Your task to perform on an android device: change text size in settings app Image 0: 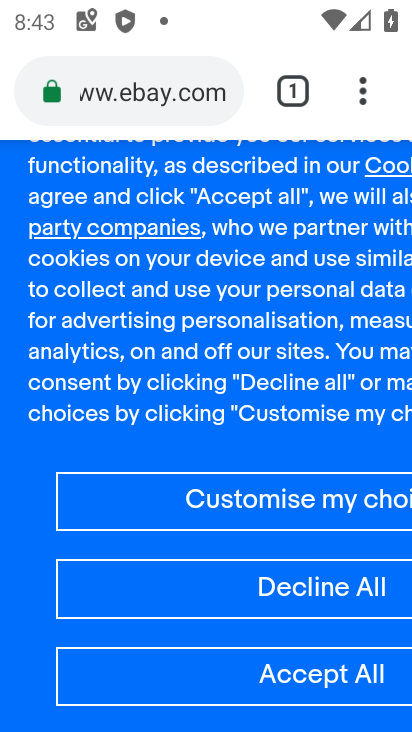
Step 0: press home button
Your task to perform on an android device: change text size in settings app Image 1: 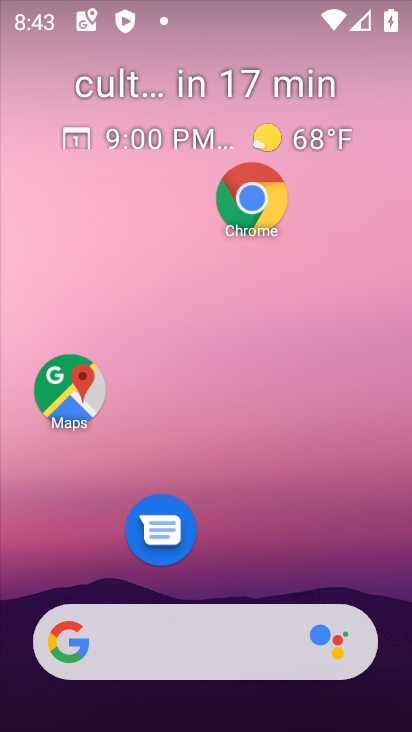
Step 1: drag from (208, 560) to (209, 124)
Your task to perform on an android device: change text size in settings app Image 2: 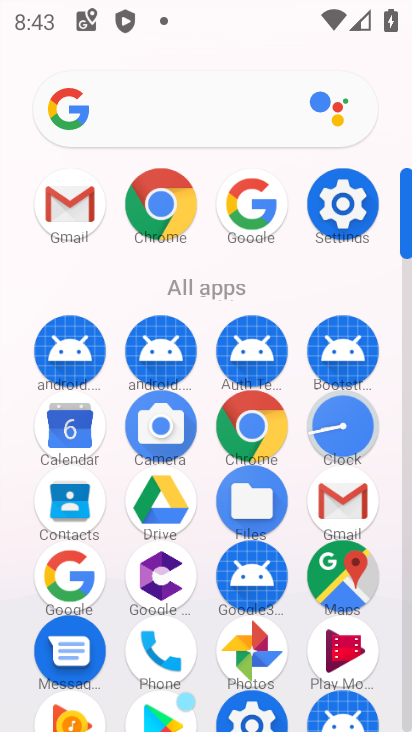
Step 2: click (350, 212)
Your task to perform on an android device: change text size in settings app Image 3: 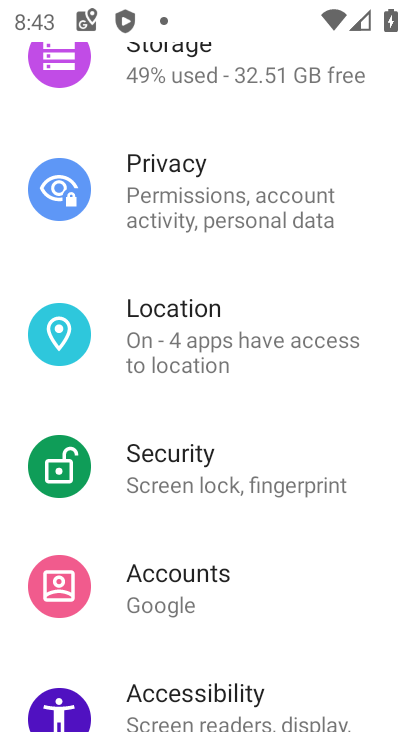
Step 3: drag from (196, 184) to (196, 462)
Your task to perform on an android device: change text size in settings app Image 4: 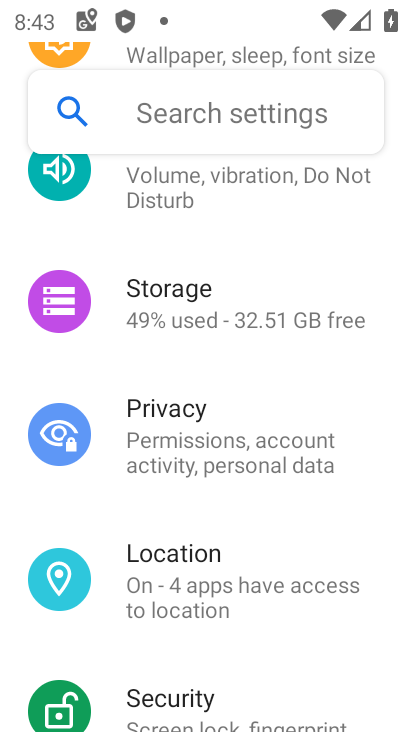
Step 4: drag from (180, 224) to (218, 479)
Your task to perform on an android device: change text size in settings app Image 5: 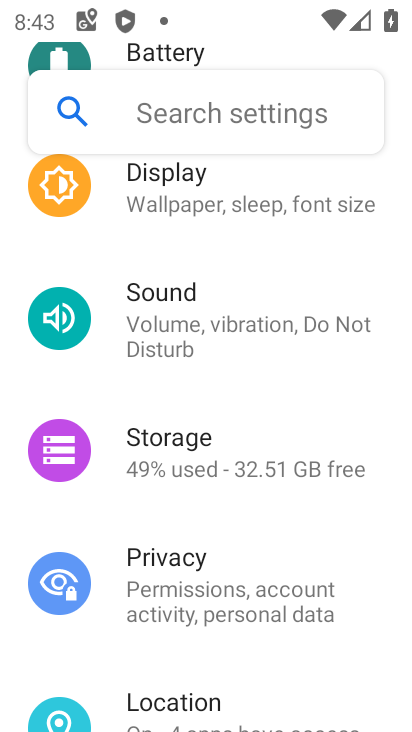
Step 5: click (177, 197)
Your task to perform on an android device: change text size in settings app Image 6: 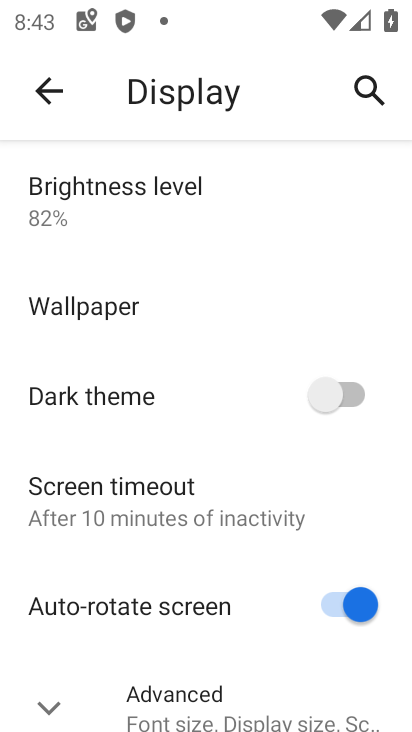
Step 6: drag from (170, 637) to (170, 375)
Your task to perform on an android device: change text size in settings app Image 7: 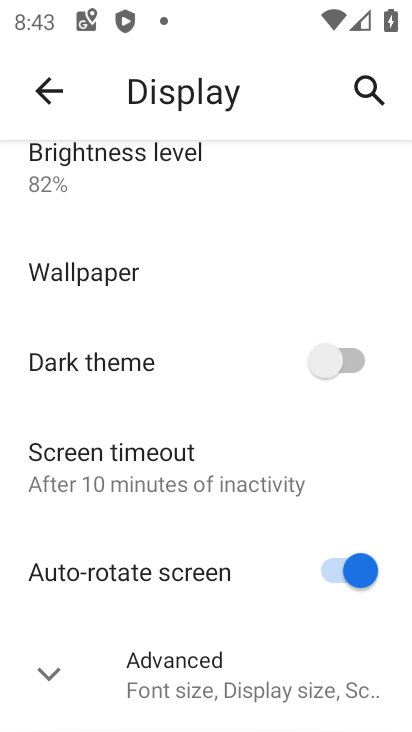
Step 7: click (123, 668)
Your task to perform on an android device: change text size in settings app Image 8: 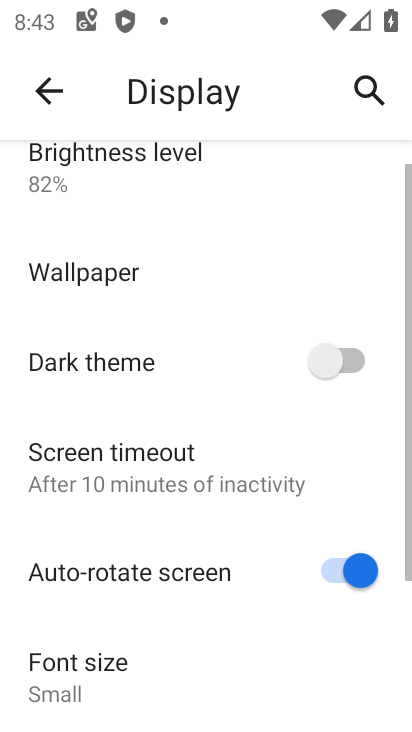
Step 8: drag from (123, 668) to (132, 458)
Your task to perform on an android device: change text size in settings app Image 9: 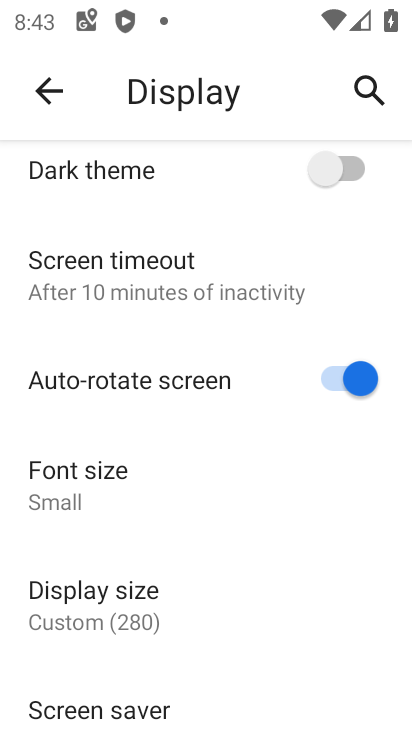
Step 9: click (115, 488)
Your task to perform on an android device: change text size in settings app Image 10: 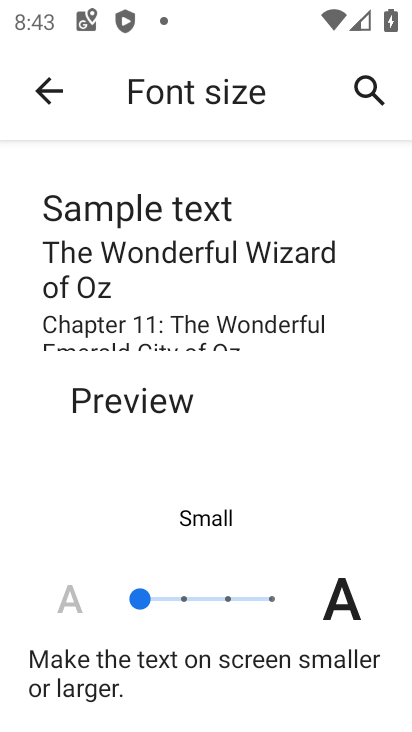
Step 10: click (178, 601)
Your task to perform on an android device: change text size in settings app Image 11: 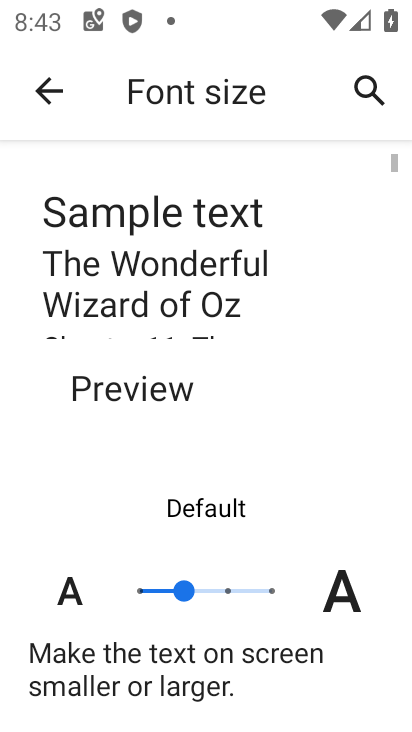
Step 11: task complete